Your task to perform on an android device: What is the recent news? Image 0: 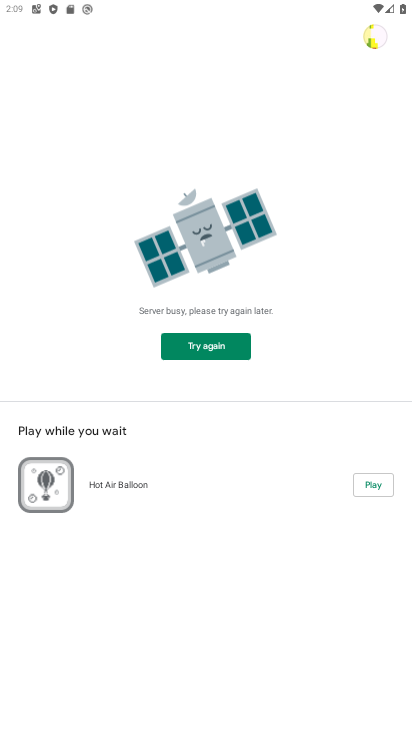
Step 0: press home button
Your task to perform on an android device: What is the recent news? Image 1: 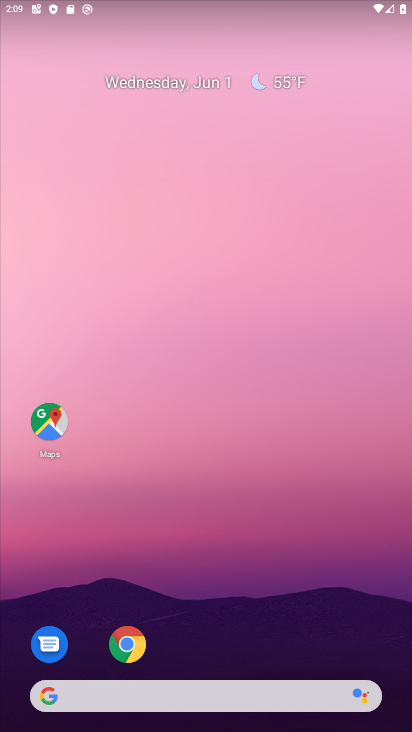
Step 1: click (134, 643)
Your task to perform on an android device: What is the recent news? Image 2: 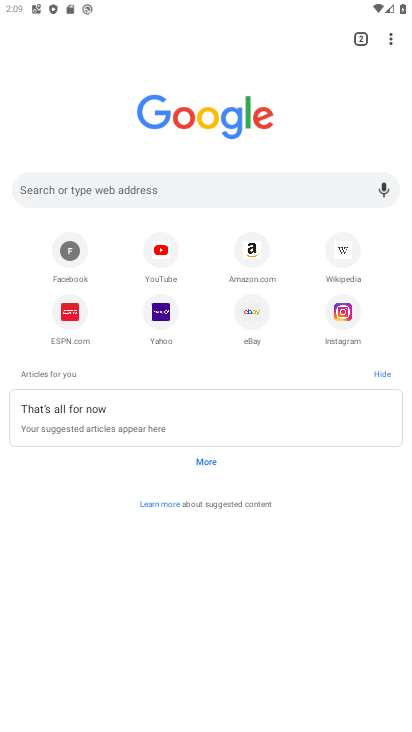
Step 2: click (108, 190)
Your task to perform on an android device: What is the recent news? Image 3: 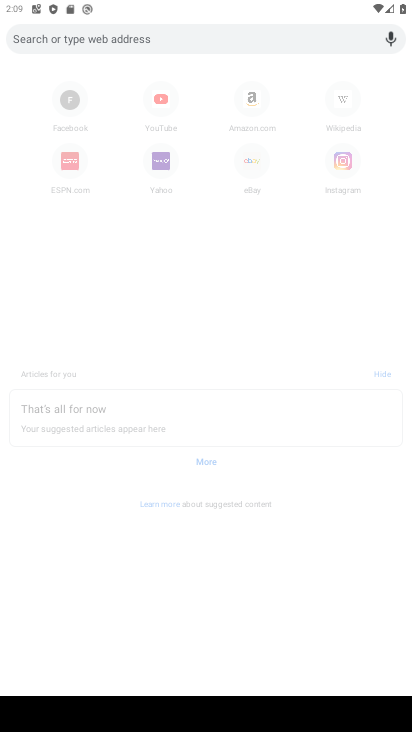
Step 3: type "recent news"
Your task to perform on an android device: What is the recent news? Image 4: 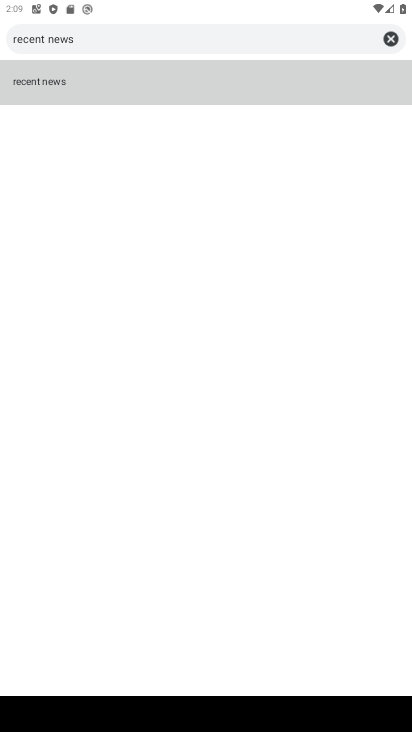
Step 4: click (90, 79)
Your task to perform on an android device: What is the recent news? Image 5: 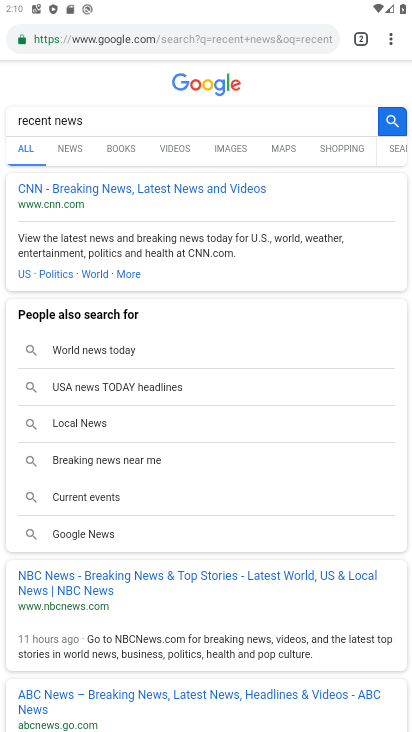
Step 5: task complete